Your task to perform on an android device: turn notification dots on Image 0: 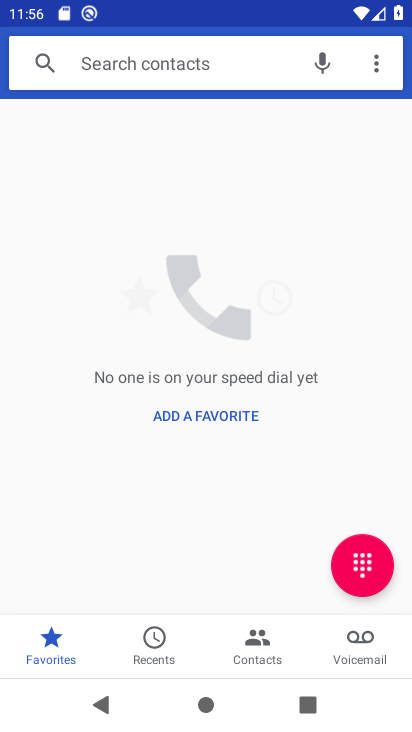
Step 0: press home button
Your task to perform on an android device: turn notification dots on Image 1: 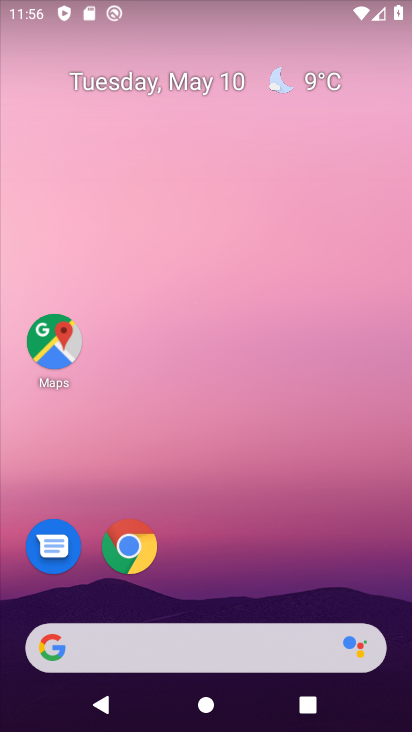
Step 1: drag from (199, 609) to (333, 80)
Your task to perform on an android device: turn notification dots on Image 2: 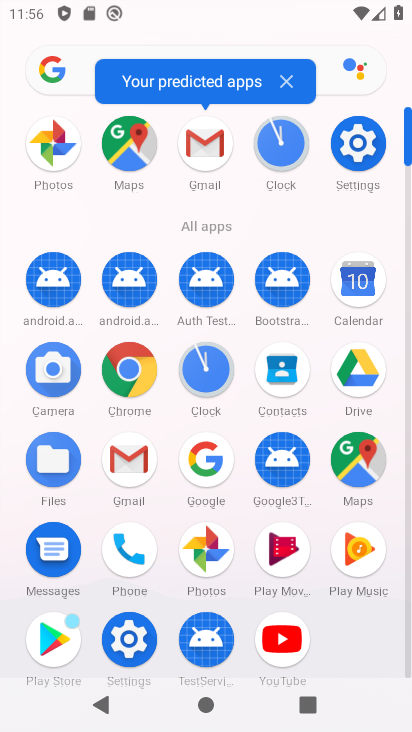
Step 2: click (345, 144)
Your task to perform on an android device: turn notification dots on Image 3: 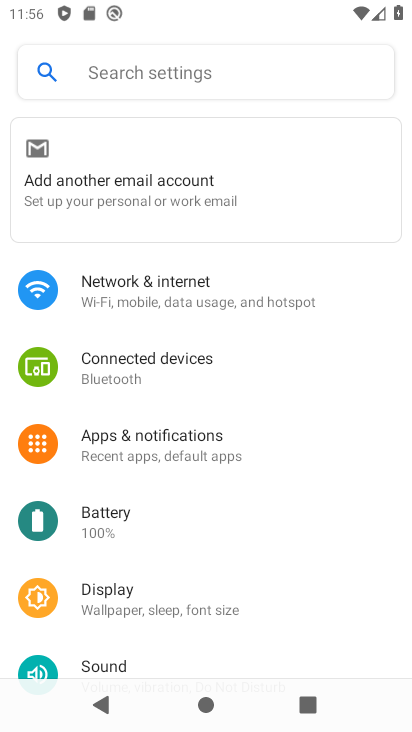
Step 3: click (195, 445)
Your task to perform on an android device: turn notification dots on Image 4: 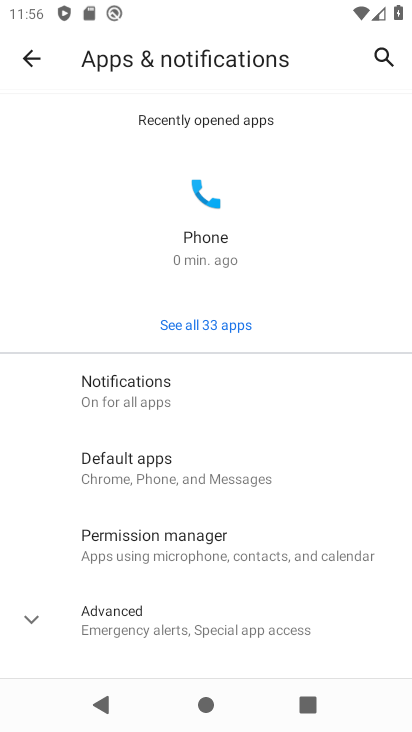
Step 4: click (139, 400)
Your task to perform on an android device: turn notification dots on Image 5: 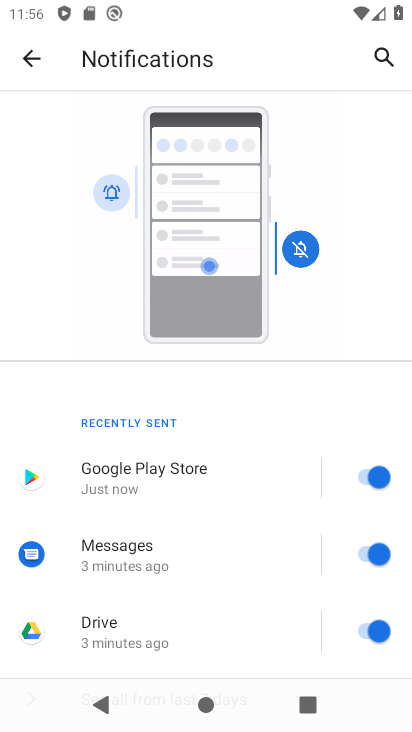
Step 5: drag from (199, 586) to (337, 98)
Your task to perform on an android device: turn notification dots on Image 6: 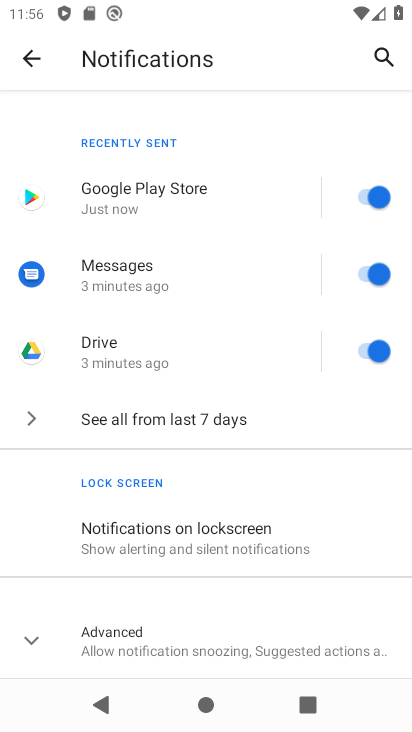
Step 6: click (118, 632)
Your task to perform on an android device: turn notification dots on Image 7: 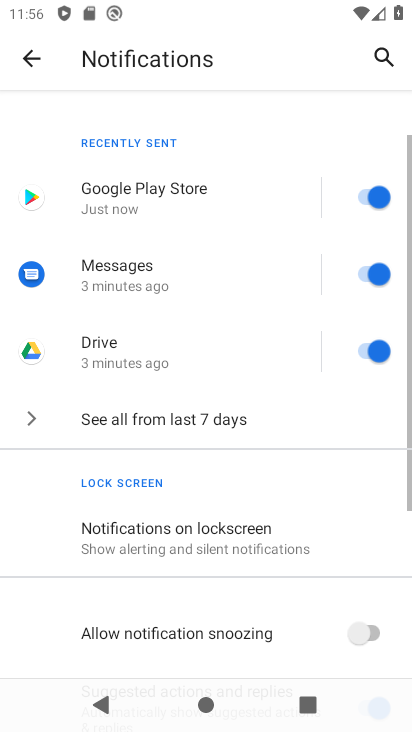
Step 7: task complete